Your task to perform on an android device: find which apps use the phone's location Image 0: 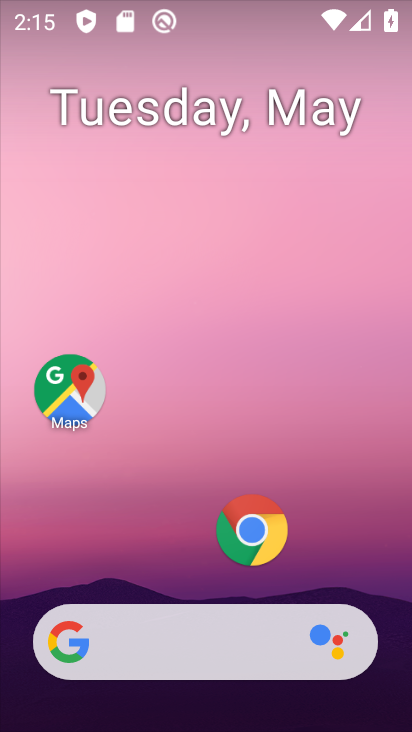
Step 0: drag from (194, 585) to (181, 132)
Your task to perform on an android device: find which apps use the phone's location Image 1: 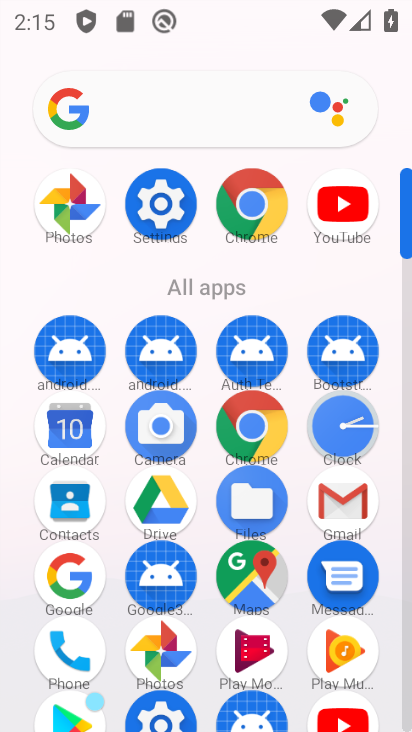
Step 1: click (162, 706)
Your task to perform on an android device: find which apps use the phone's location Image 2: 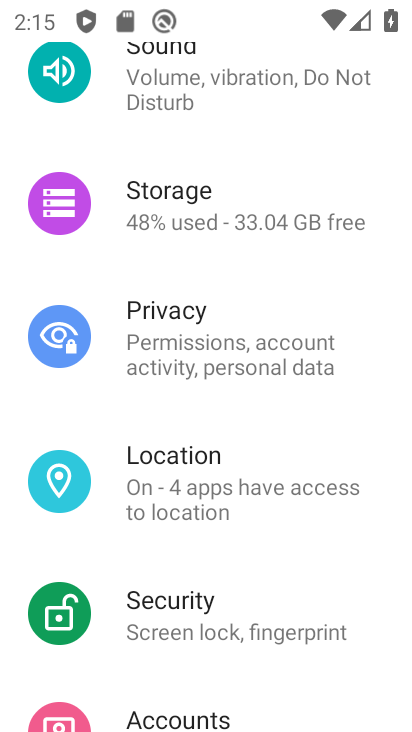
Step 2: click (167, 478)
Your task to perform on an android device: find which apps use the phone's location Image 3: 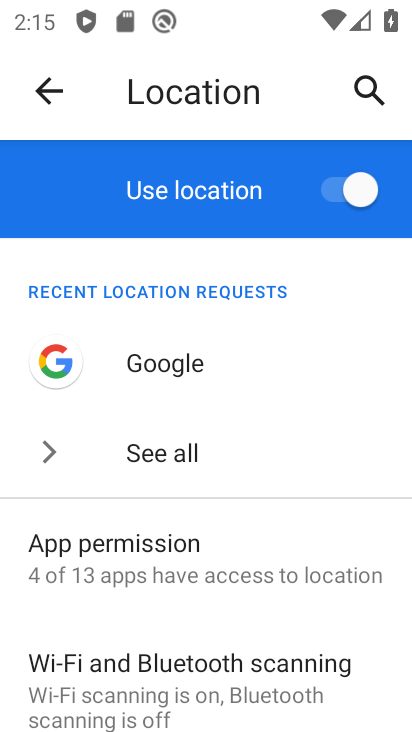
Step 3: drag from (197, 690) to (159, 422)
Your task to perform on an android device: find which apps use the phone's location Image 4: 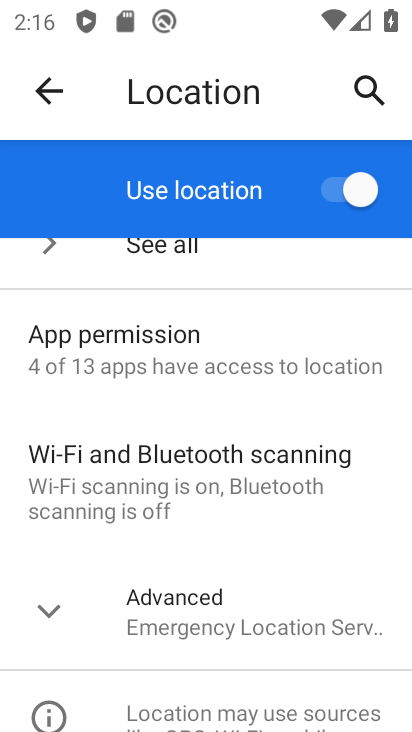
Step 4: click (123, 355)
Your task to perform on an android device: find which apps use the phone's location Image 5: 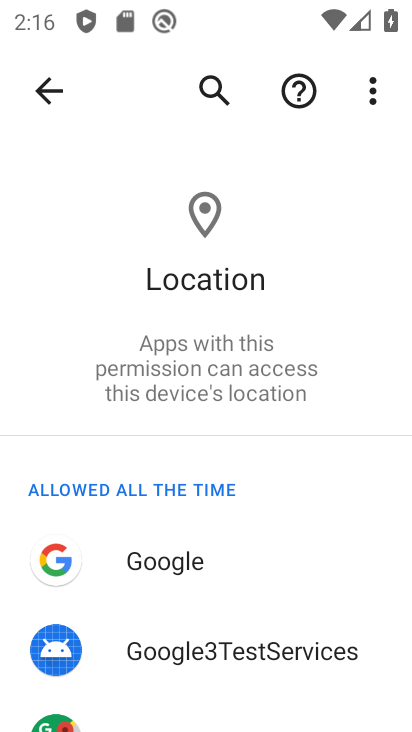
Step 5: task complete